Your task to perform on an android device: choose inbox layout in the gmail app Image 0: 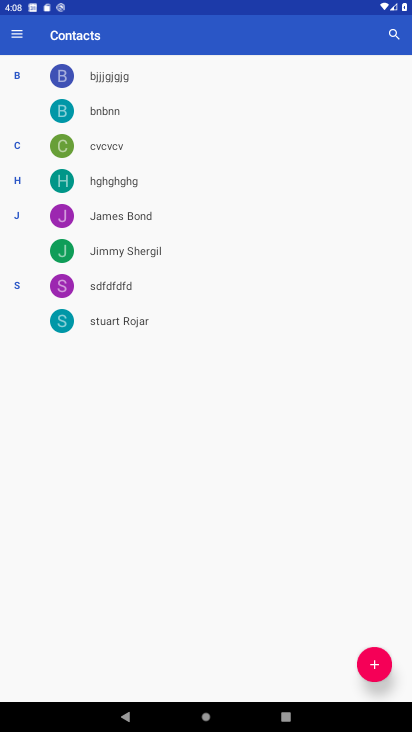
Step 0: press home button
Your task to perform on an android device: choose inbox layout in the gmail app Image 1: 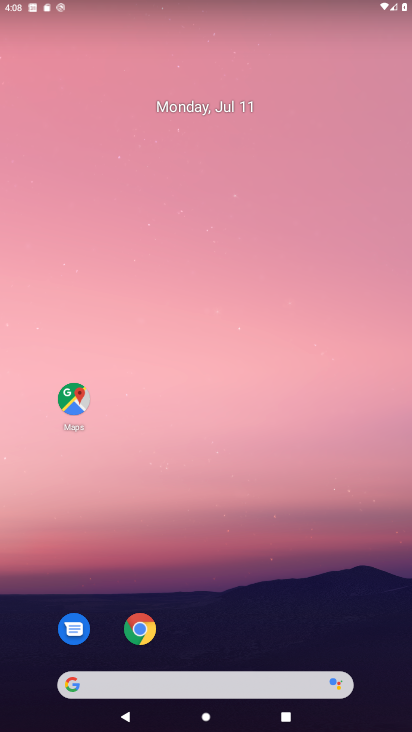
Step 1: drag from (385, 609) to (389, 202)
Your task to perform on an android device: choose inbox layout in the gmail app Image 2: 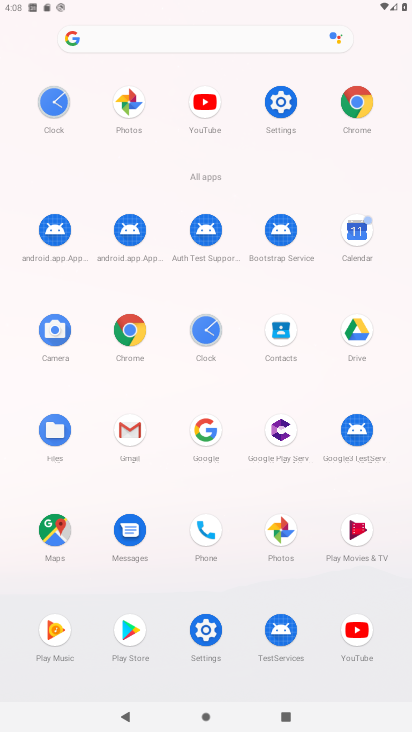
Step 2: click (131, 441)
Your task to perform on an android device: choose inbox layout in the gmail app Image 3: 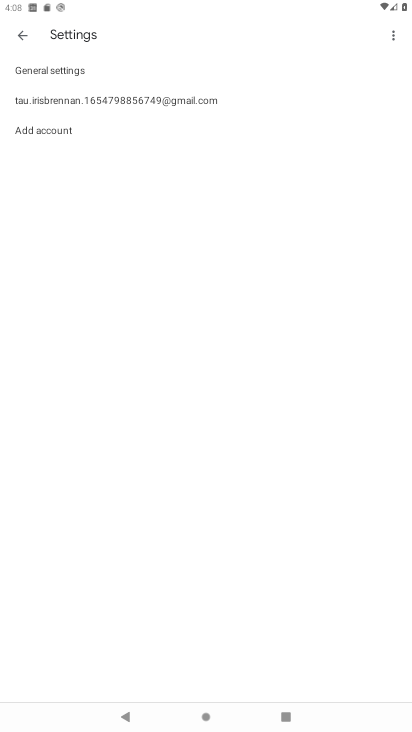
Step 3: click (70, 103)
Your task to perform on an android device: choose inbox layout in the gmail app Image 4: 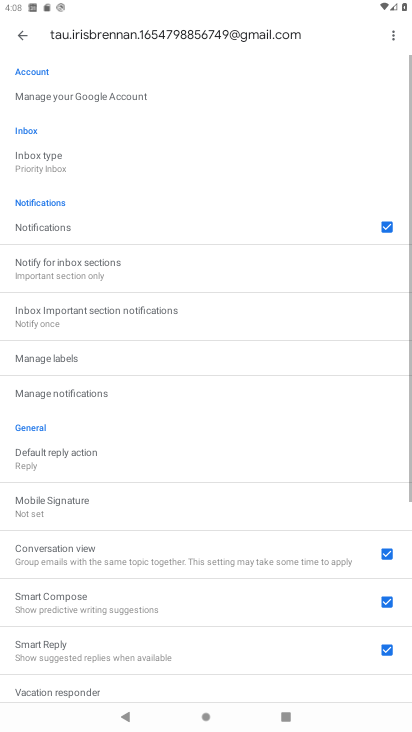
Step 4: click (47, 163)
Your task to perform on an android device: choose inbox layout in the gmail app Image 5: 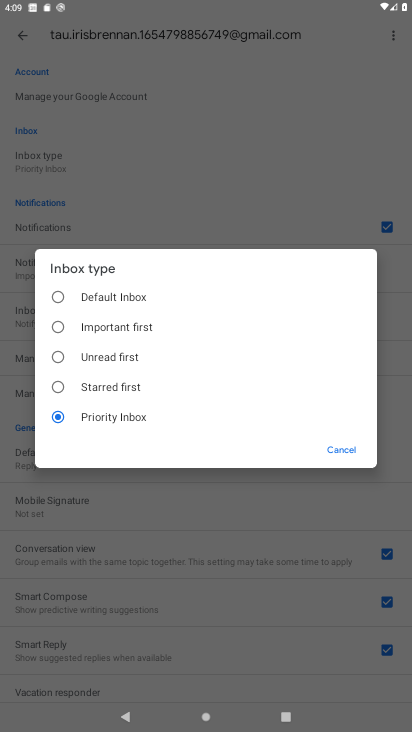
Step 5: click (61, 326)
Your task to perform on an android device: choose inbox layout in the gmail app Image 6: 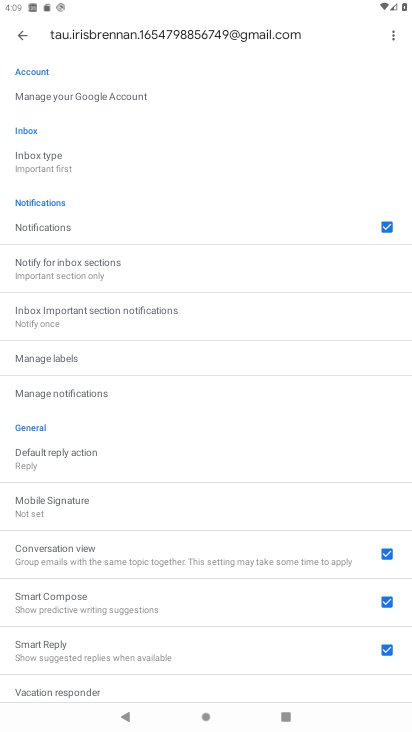
Step 6: task complete